Your task to perform on an android device: Go to location settings Image 0: 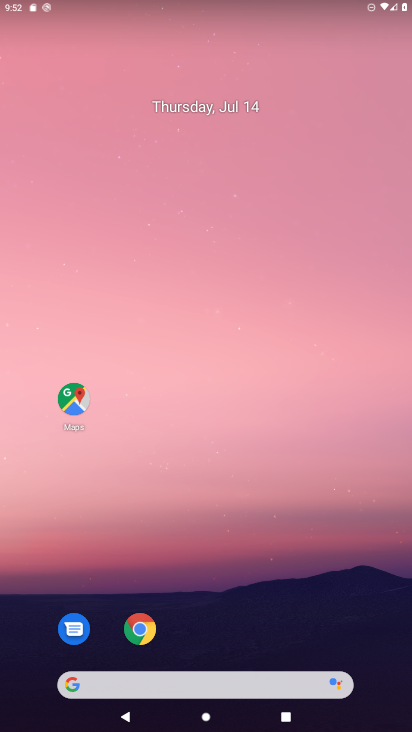
Step 0: drag from (219, 631) to (253, 84)
Your task to perform on an android device: Go to location settings Image 1: 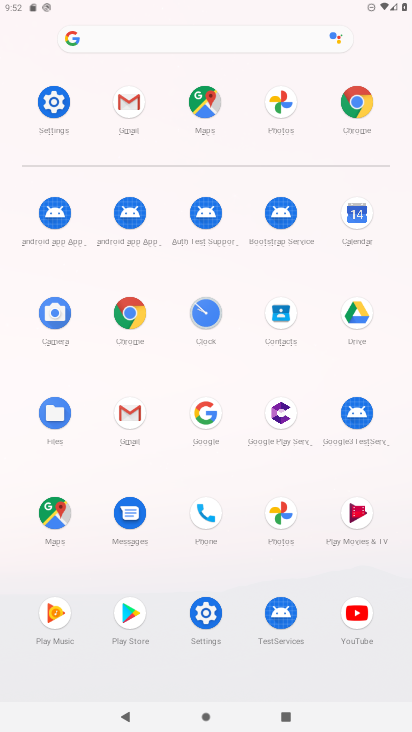
Step 1: click (202, 599)
Your task to perform on an android device: Go to location settings Image 2: 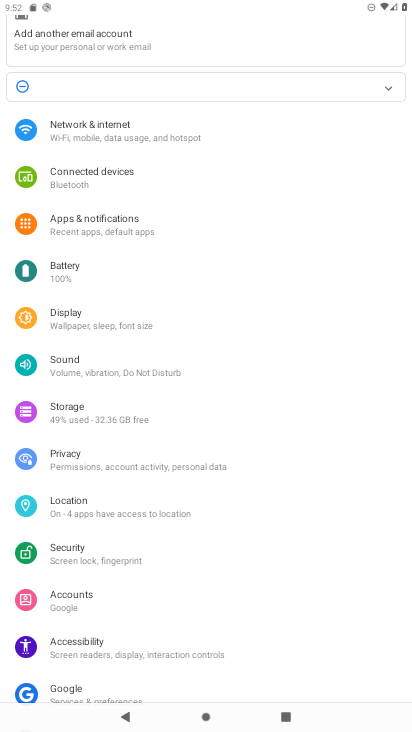
Step 2: click (71, 506)
Your task to perform on an android device: Go to location settings Image 3: 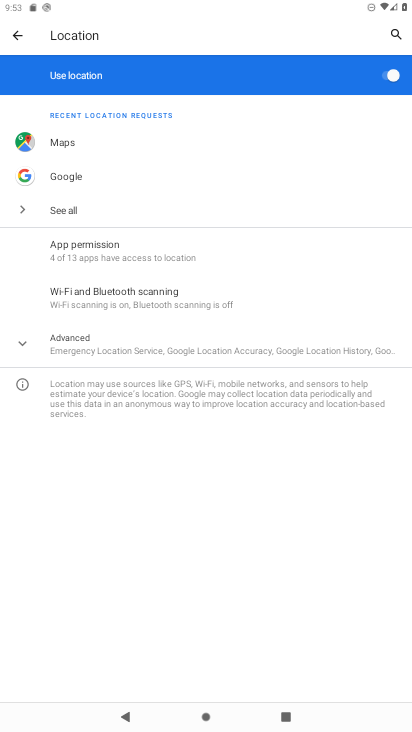
Step 3: task complete